Your task to perform on an android device: see sites visited before in the chrome app Image 0: 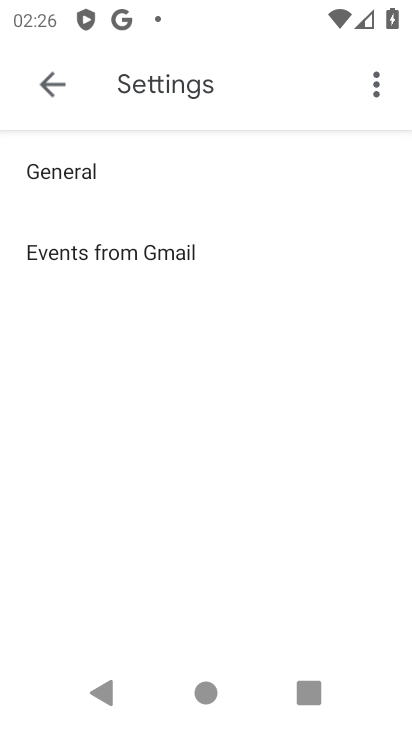
Step 0: press home button
Your task to perform on an android device: see sites visited before in the chrome app Image 1: 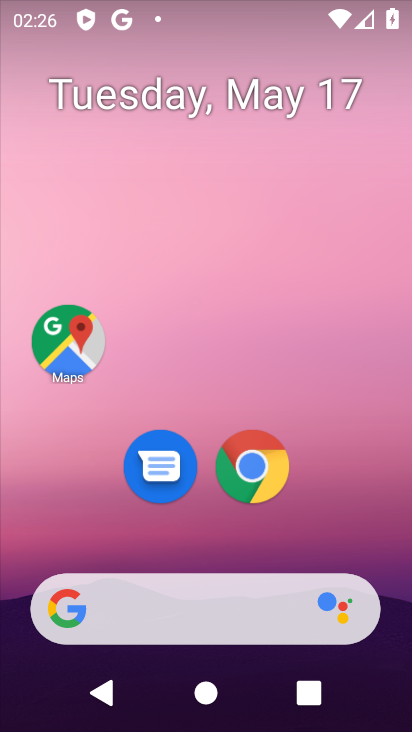
Step 1: click (251, 457)
Your task to perform on an android device: see sites visited before in the chrome app Image 2: 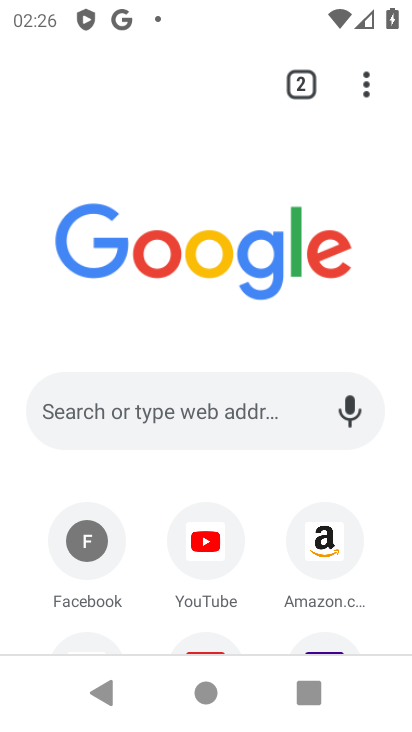
Step 2: task complete